Your task to perform on an android device: all mails in gmail Image 0: 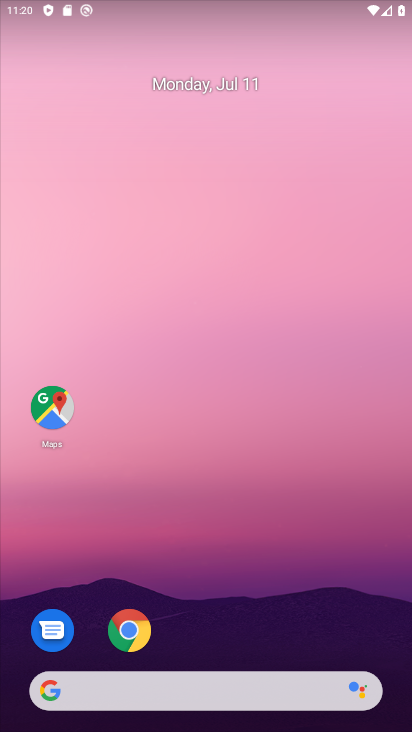
Step 0: click (345, 80)
Your task to perform on an android device: all mails in gmail Image 1: 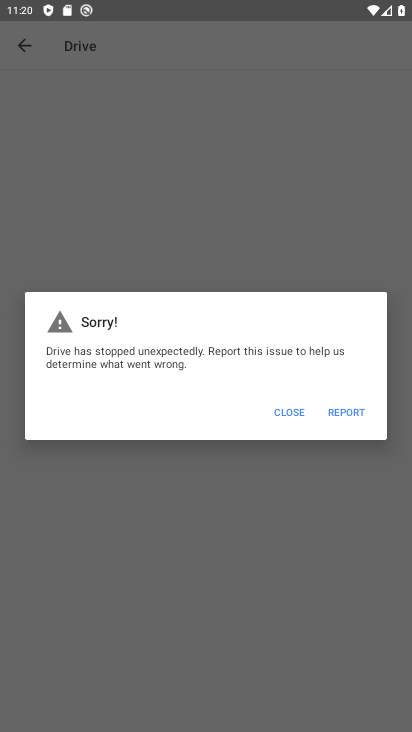
Step 1: press home button
Your task to perform on an android device: all mails in gmail Image 2: 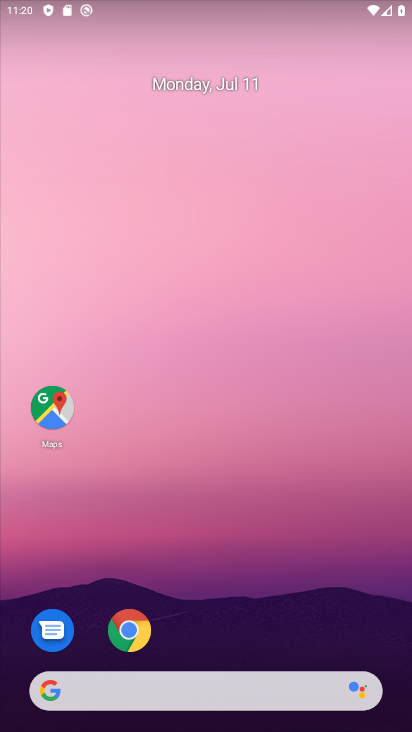
Step 2: drag from (393, 642) to (334, 127)
Your task to perform on an android device: all mails in gmail Image 3: 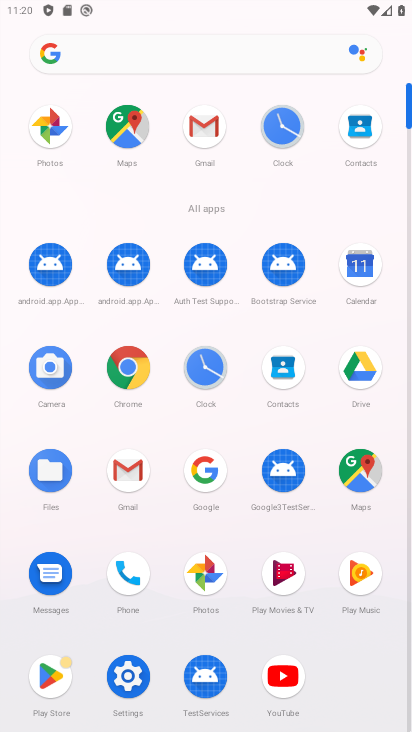
Step 3: click (125, 468)
Your task to perform on an android device: all mails in gmail Image 4: 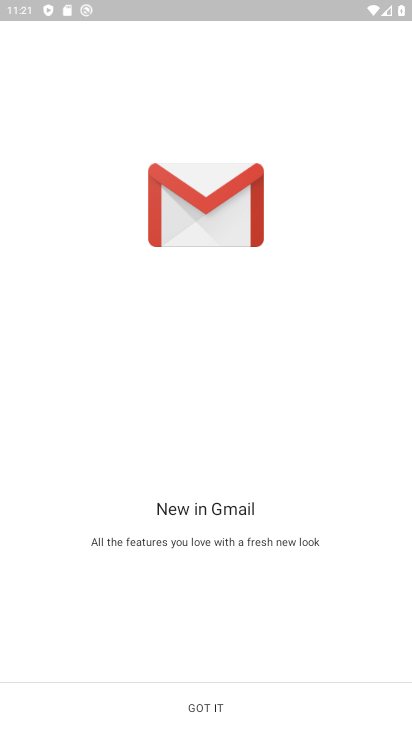
Step 4: click (221, 730)
Your task to perform on an android device: all mails in gmail Image 5: 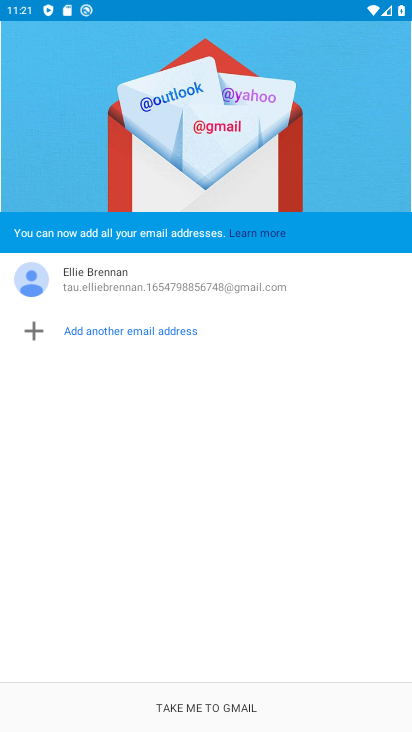
Step 5: click (200, 701)
Your task to perform on an android device: all mails in gmail Image 6: 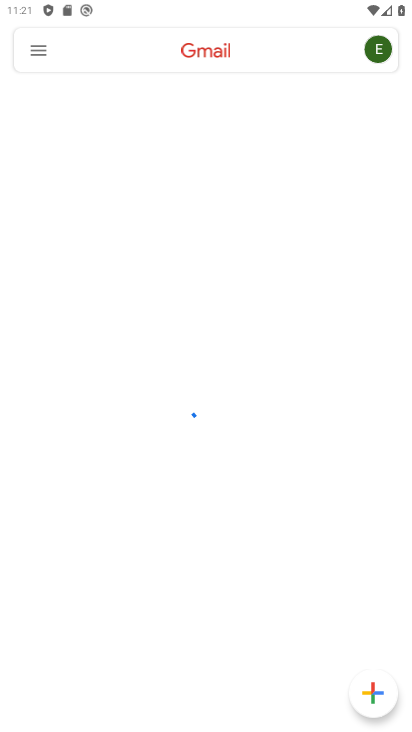
Step 6: click (36, 49)
Your task to perform on an android device: all mails in gmail Image 7: 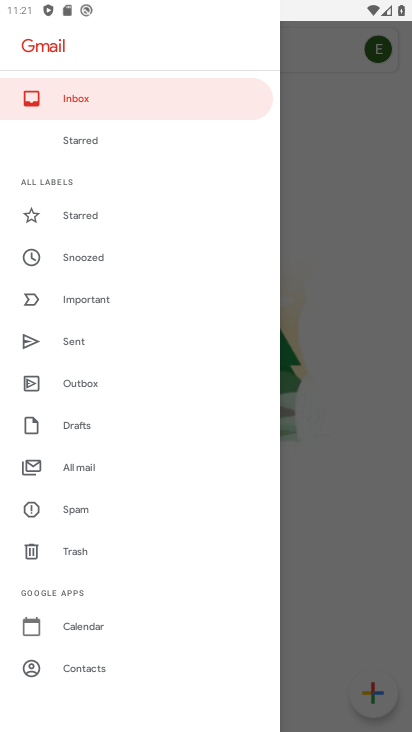
Step 7: click (79, 467)
Your task to perform on an android device: all mails in gmail Image 8: 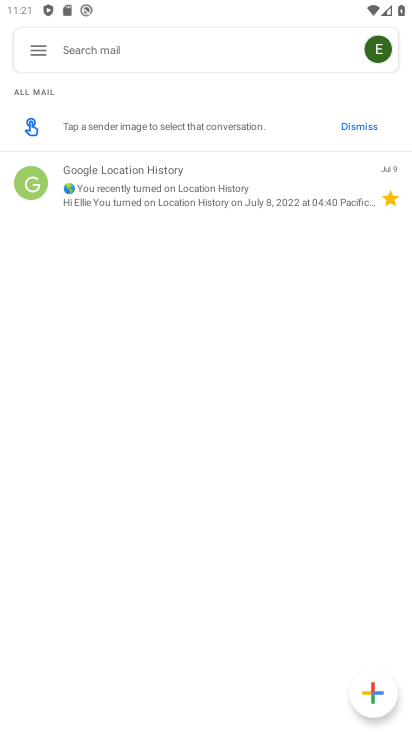
Step 8: task complete